Your task to perform on an android device: Go to internet settings Image 0: 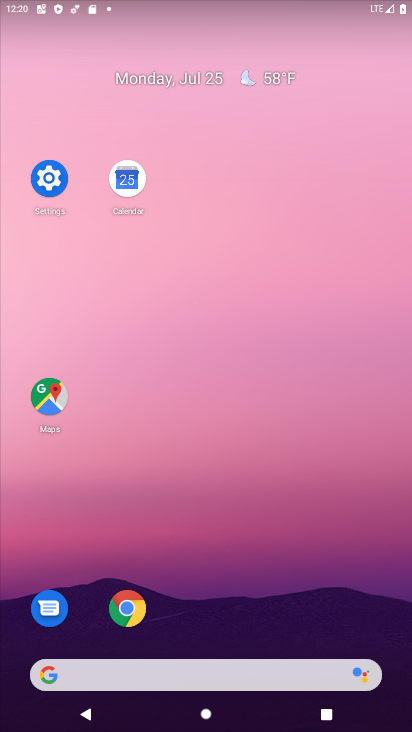
Step 0: click (41, 176)
Your task to perform on an android device: Go to internet settings Image 1: 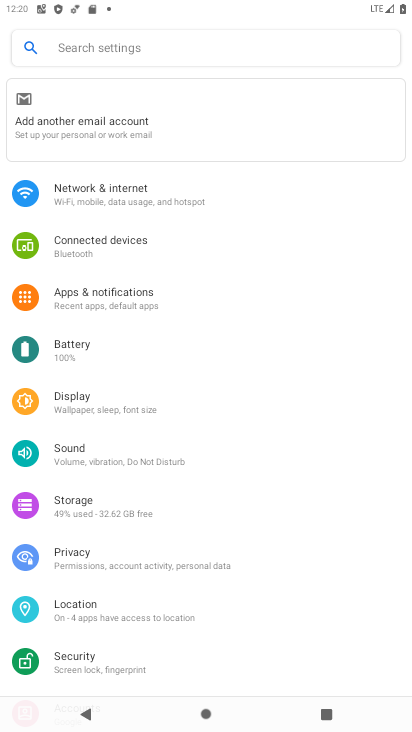
Step 1: click (92, 215)
Your task to perform on an android device: Go to internet settings Image 2: 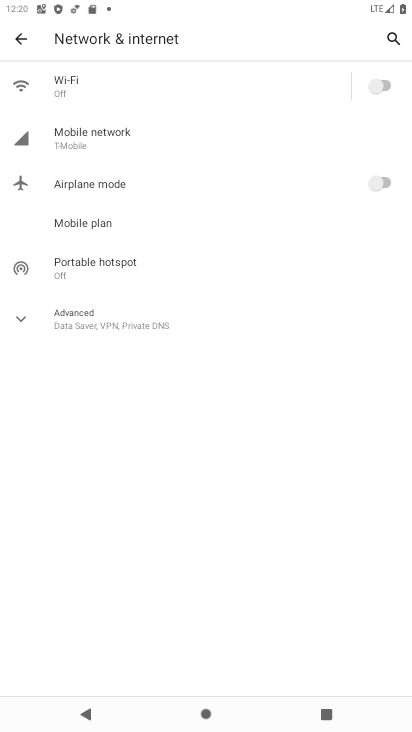
Step 2: task complete